Your task to perform on an android device: turn off translation in the chrome app Image 0: 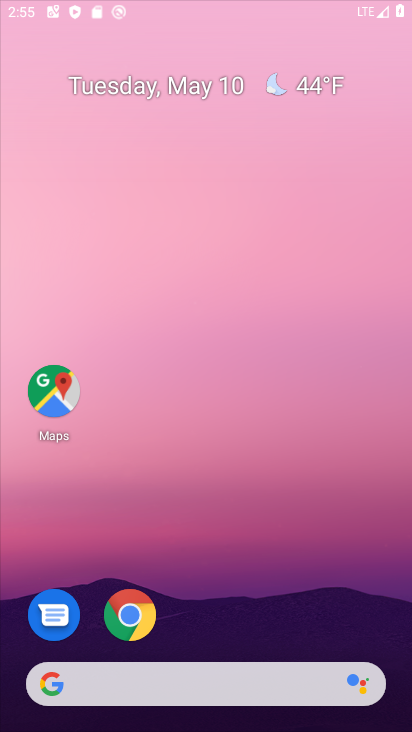
Step 0: press home button
Your task to perform on an android device: turn off translation in the chrome app Image 1: 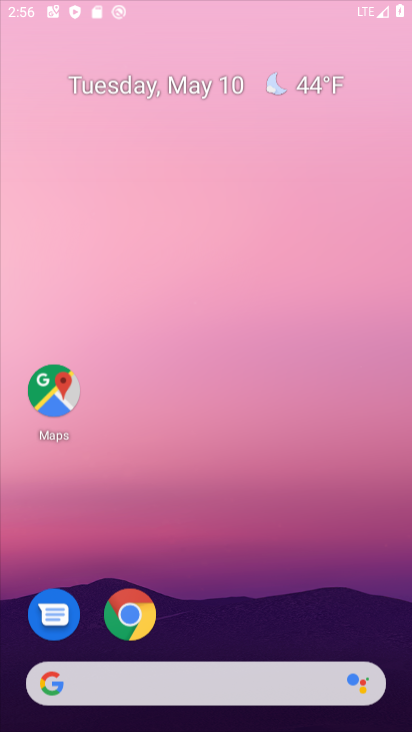
Step 1: drag from (332, 12) to (332, 718)
Your task to perform on an android device: turn off translation in the chrome app Image 2: 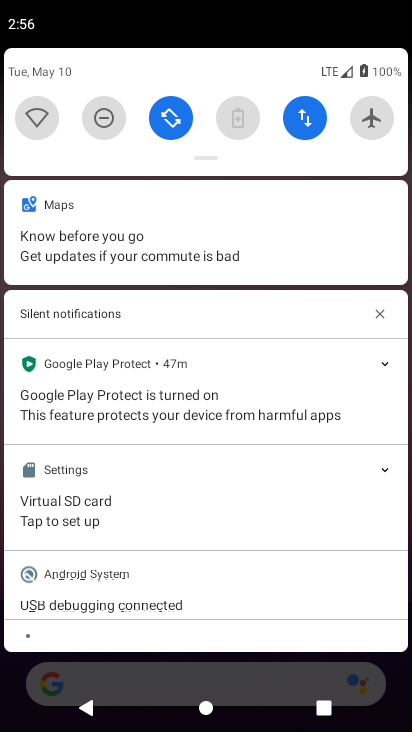
Step 2: drag from (282, 687) to (258, 81)
Your task to perform on an android device: turn off translation in the chrome app Image 3: 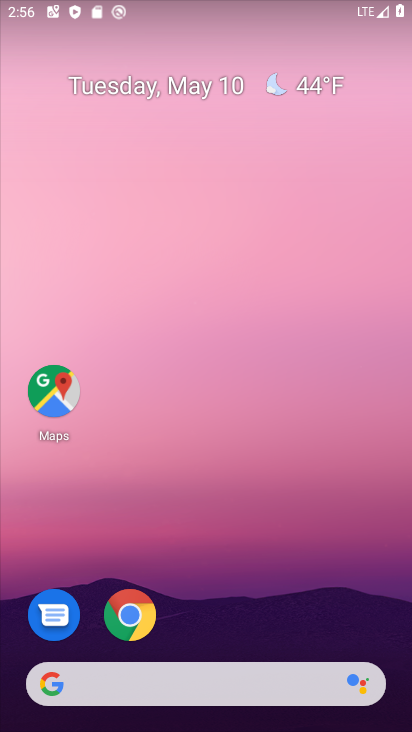
Step 3: click (140, 626)
Your task to perform on an android device: turn off translation in the chrome app Image 4: 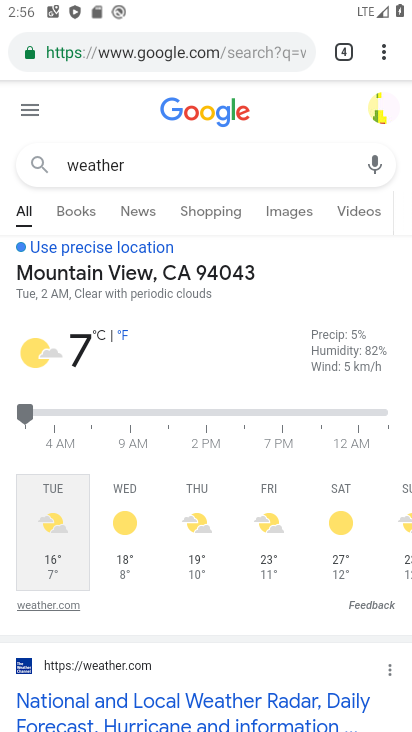
Step 4: drag from (379, 46) to (240, 574)
Your task to perform on an android device: turn off translation in the chrome app Image 5: 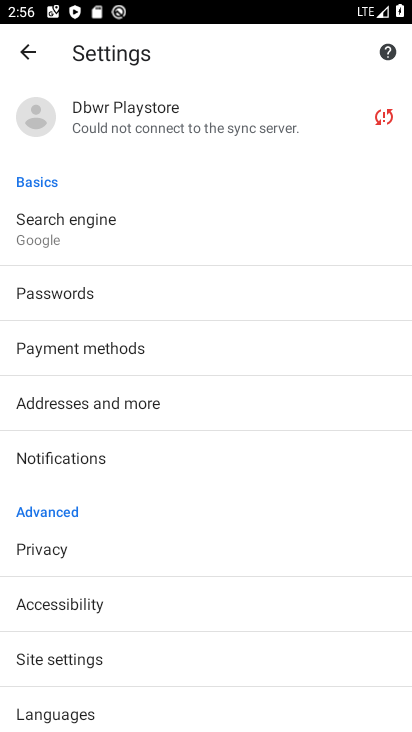
Step 5: click (130, 699)
Your task to perform on an android device: turn off translation in the chrome app Image 6: 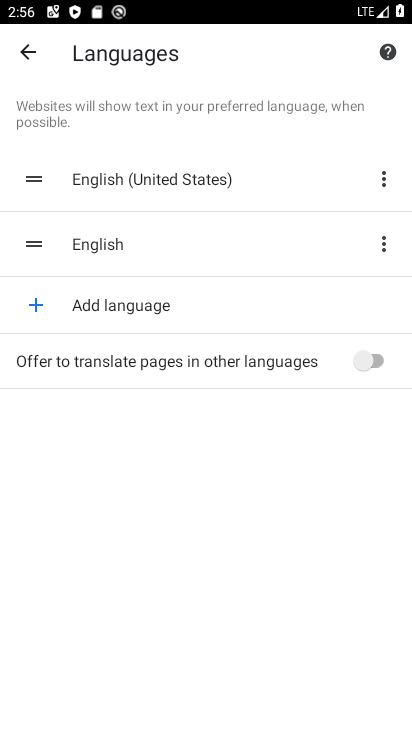
Step 6: task complete